Your task to perform on an android device: Open Chrome and go to settings Image 0: 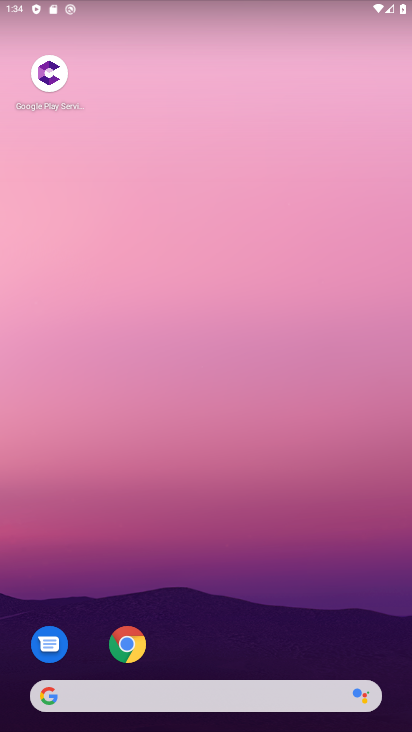
Step 0: drag from (302, 704) to (330, 5)
Your task to perform on an android device: Open Chrome and go to settings Image 1: 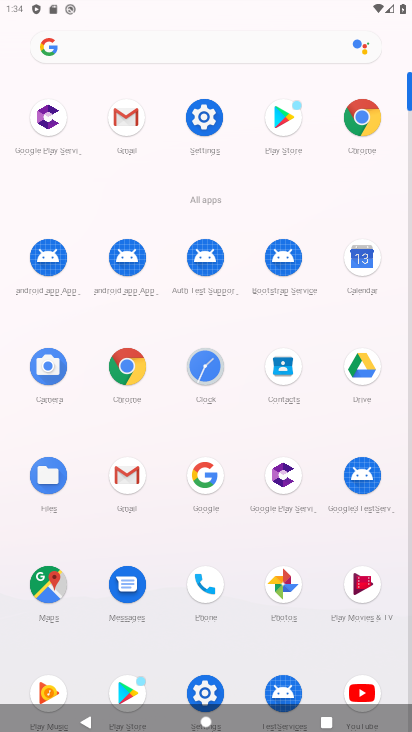
Step 1: click (126, 376)
Your task to perform on an android device: Open Chrome and go to settings Image 2: 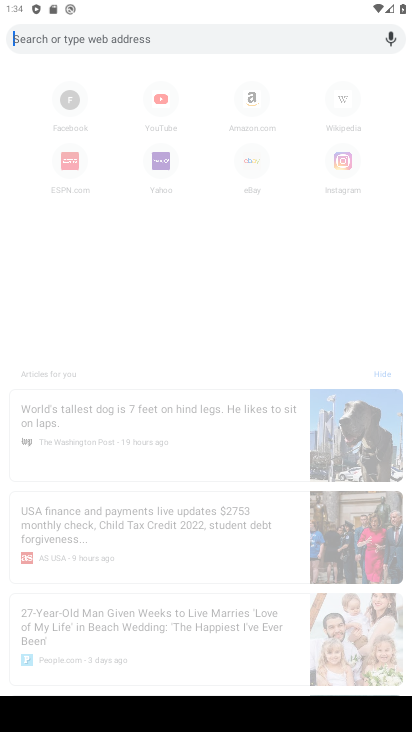
Step 2: task complete